Your task to perform on an android device: turn smart compose on in the gmail app Image 0: 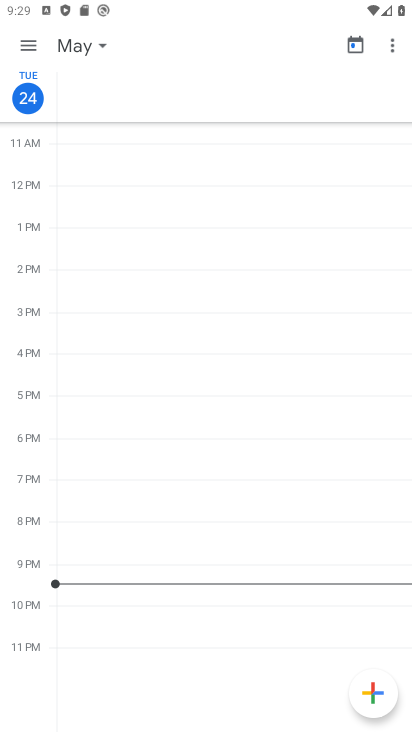
Step 0: press home button
Your task to perform on an android device: turn smart compose on in the gmail app Image 1: 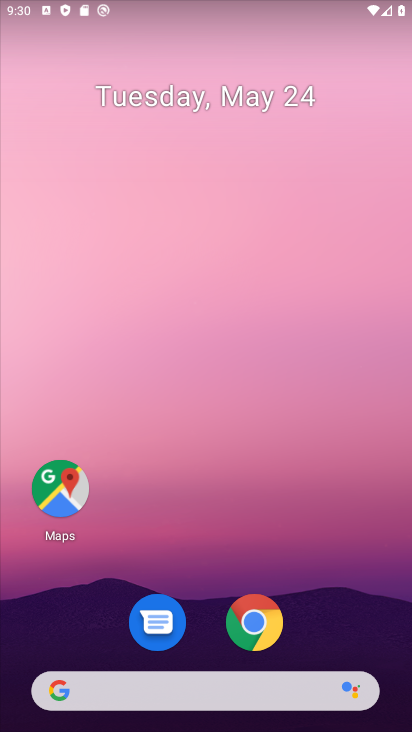
Step 1: drag from (241, 678) to (337, 243)
Your task to perform on an android device: turn smart compose on in the gmail app Image 2: 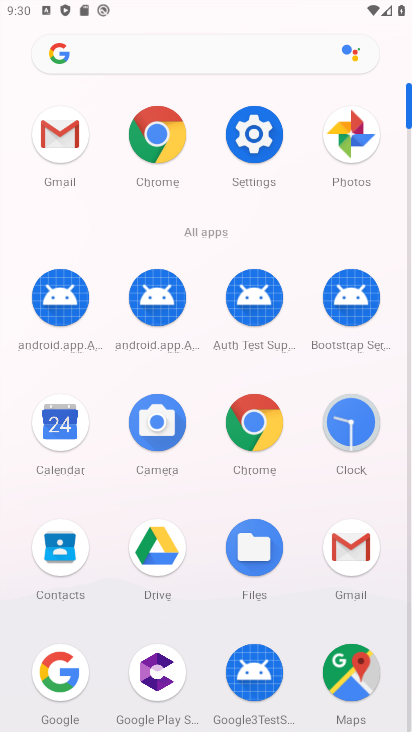
Step 2: click (77, 145)
Your task to perform on an android device: turn smart compose on in the gmail app Image 3: 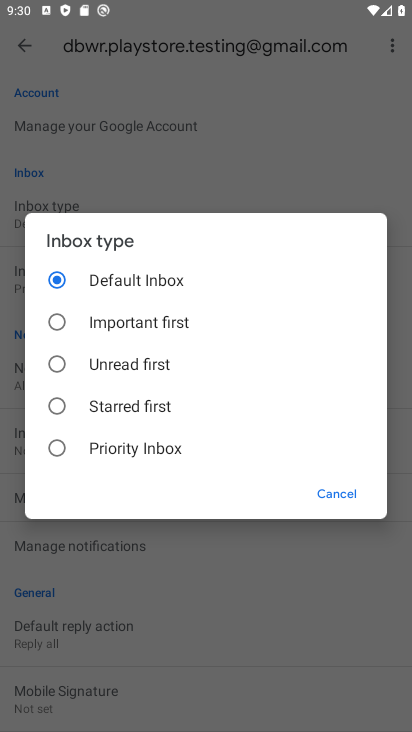
Step 3: press back button
Your task to perform on an android device: turn smart compose on in the gmail app Image 4: 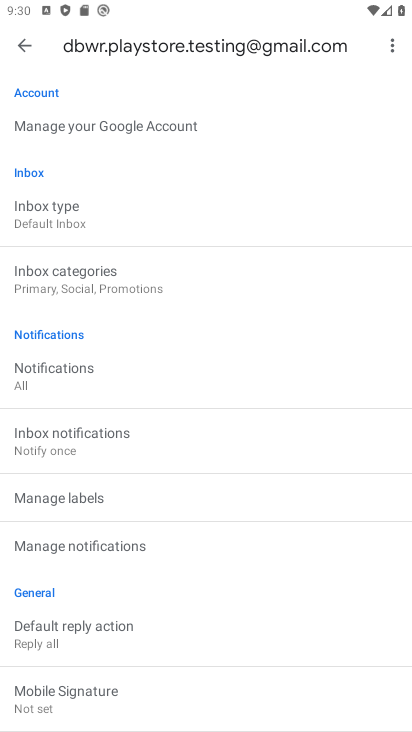
Step 4: click (25, 57)
Your task to perform on an android device: turn smart compose on in the gmail app Image 5: 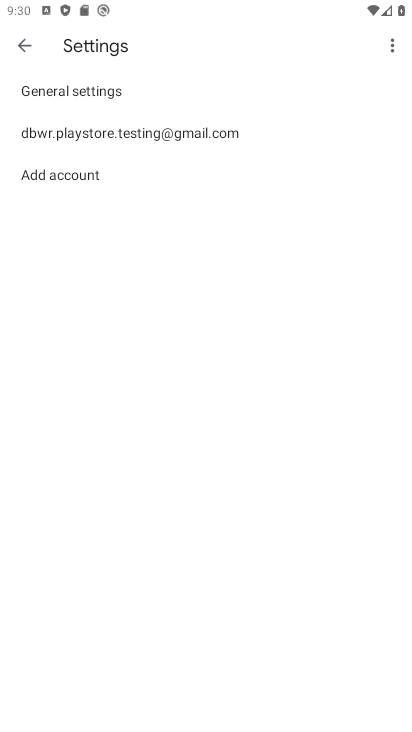
Step 5: click (25, 57)
Your task to perform on an android device: turn smart compose on in the gmail app Image 6: 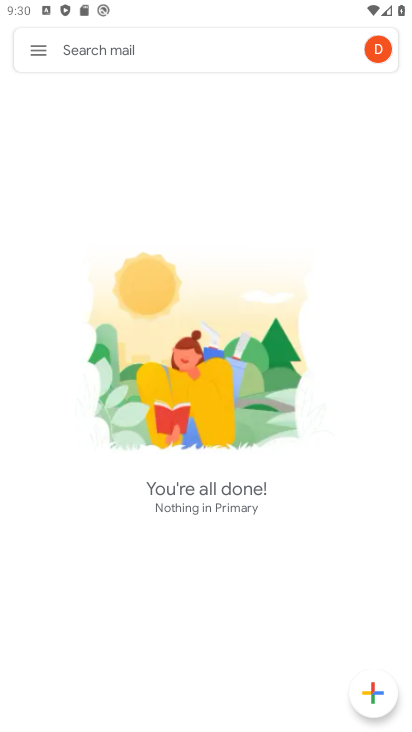
Step 6: click (37, 52)
Your task to perform on an android device: turn smart compose on in the gmail app Image 7: 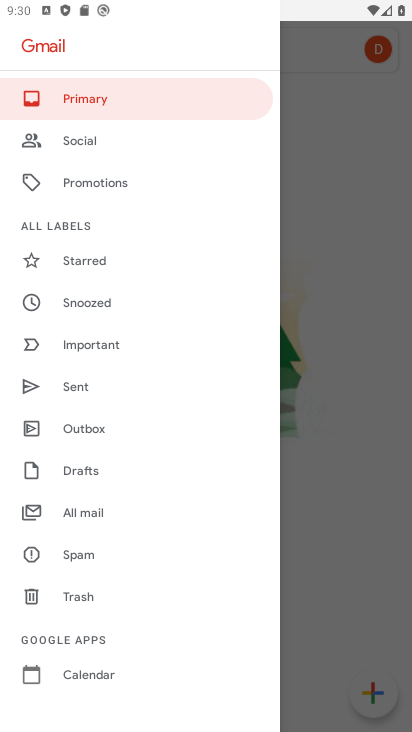
Step 7: drag from (110, 620) to (284, 263)
Your task to perform on an android device: turn smart compose on in the gmail app Image 8: 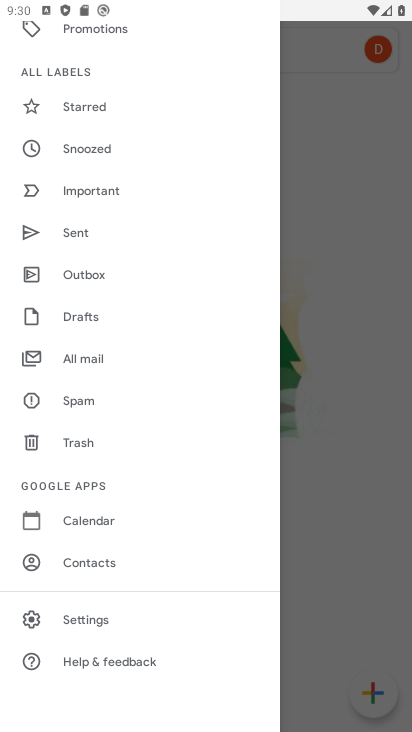
Step 8: drag from (84, 422) to (285, 42)
Your task to perform on an android device: turn smart compose on in the gmail app Image 9: 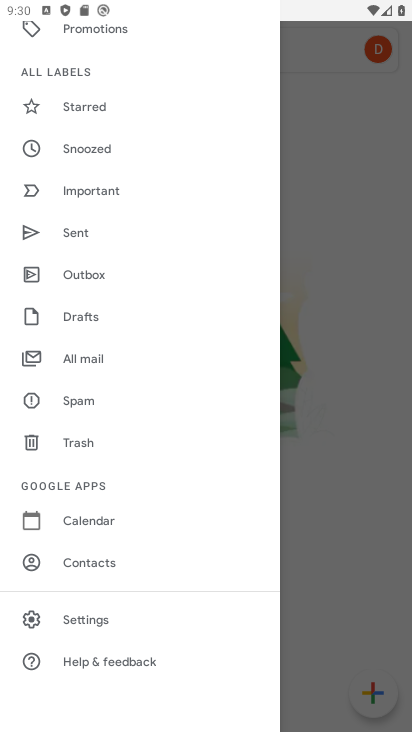
Step 9: click (74, 621)
Your task to perform on an android device: turn smart compose on in the gmail app Image 10: 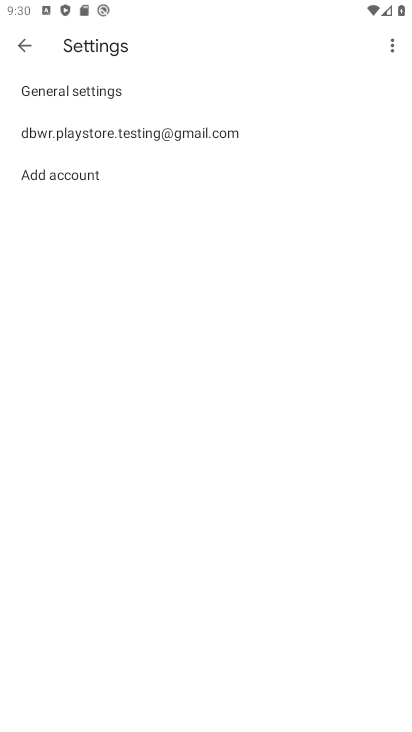
Step 10: click (184, 136)
Your task to perform on an android device: turn smart compose on in the gmail app Image 11: 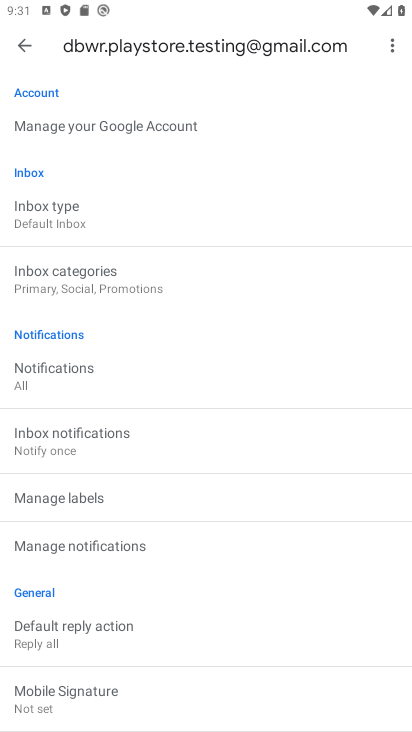
Step 11: drag from (89, 565) to (301, 108)
Your task to perform on an android device: turn smart compose on in the gmail app Image 12: 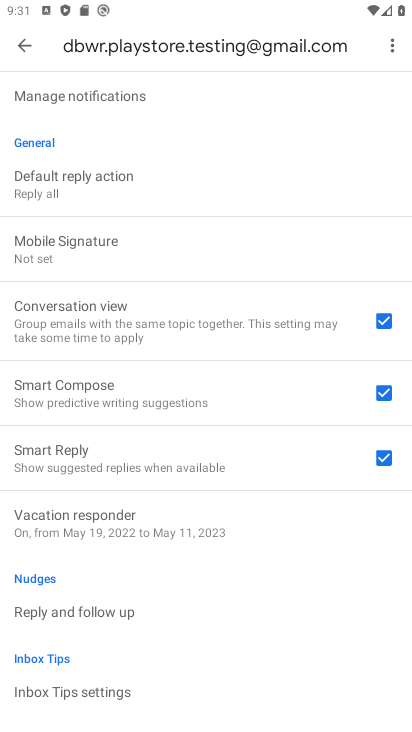
Step 12: drag from (186, 455) to (324, 209)
Your task to perform on an android device: turn smart compose on in the gmail app Image 13: 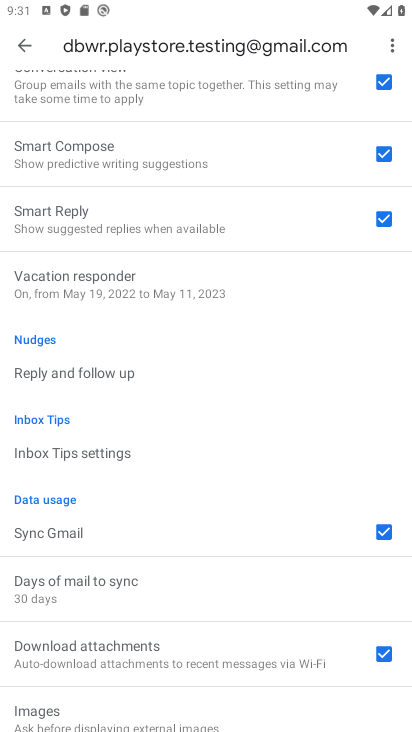
Step 13: click (379, 147)
Your task to perform on an android device: turn smart compose on in the gmail app Image 14: 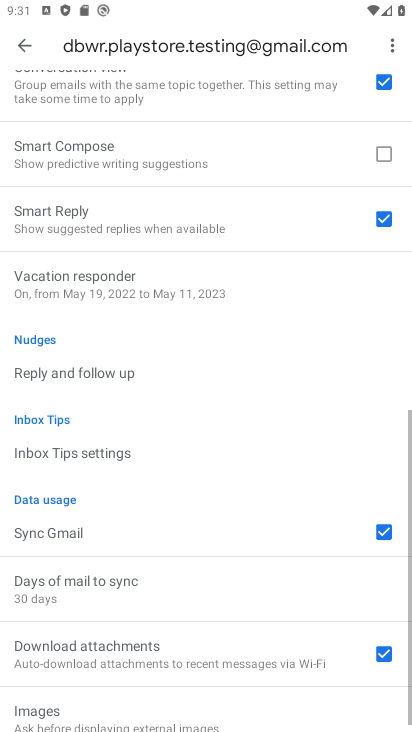
Step 14: click (379, 154)
Your task to perform on an android device: turn smart compose on in the gmail app Image 15: 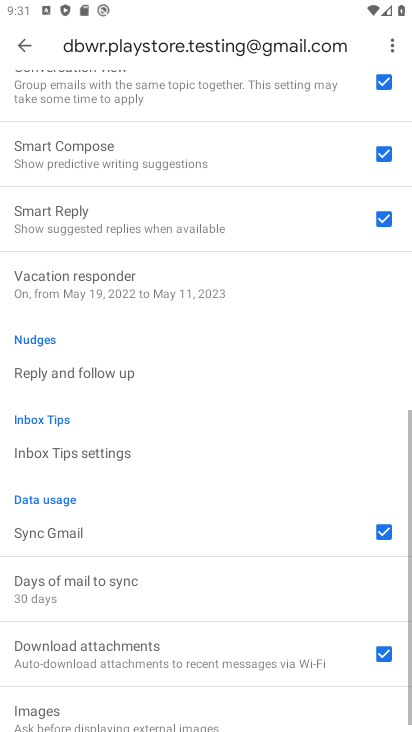
Step 15: task complete